Your task to perform on an android device: Toggle the flashlight Image 0: 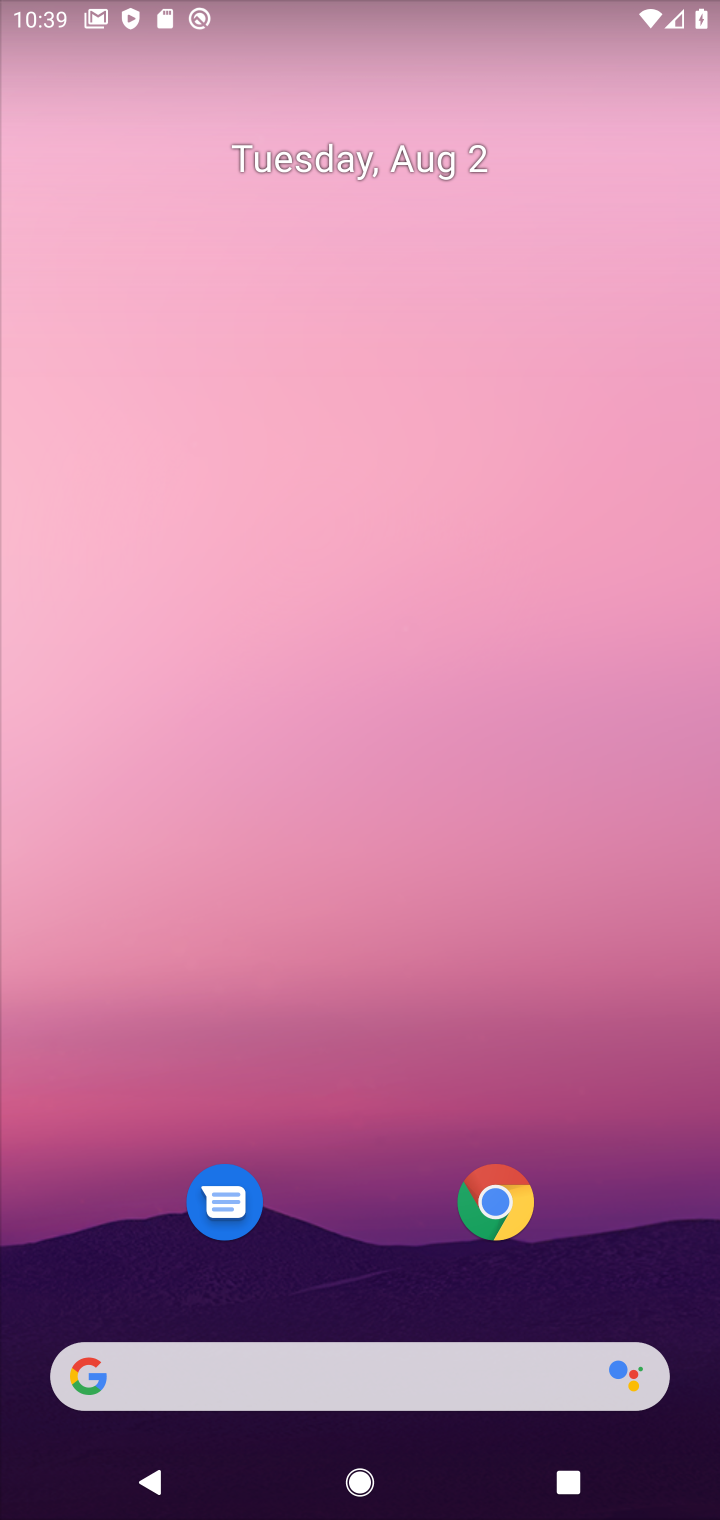
Step 0: drag from (527, 15) to (423, 1092)
Your task to perform on an android device: Toggle the flashlight Image 1: 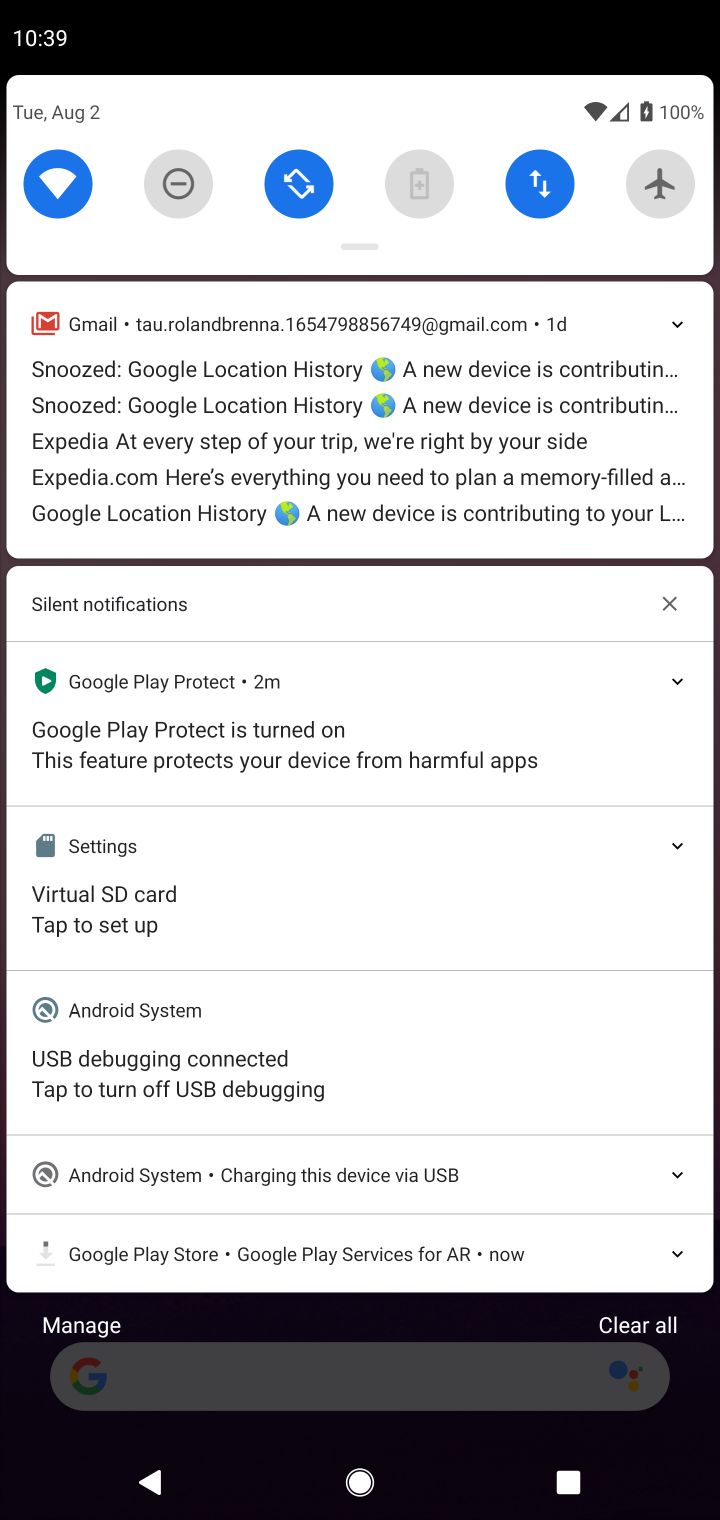
Step 1: drag from (355, 191) to (444, 1451)
Your task to perform on an android device: Toggle the flashlight Image 2: 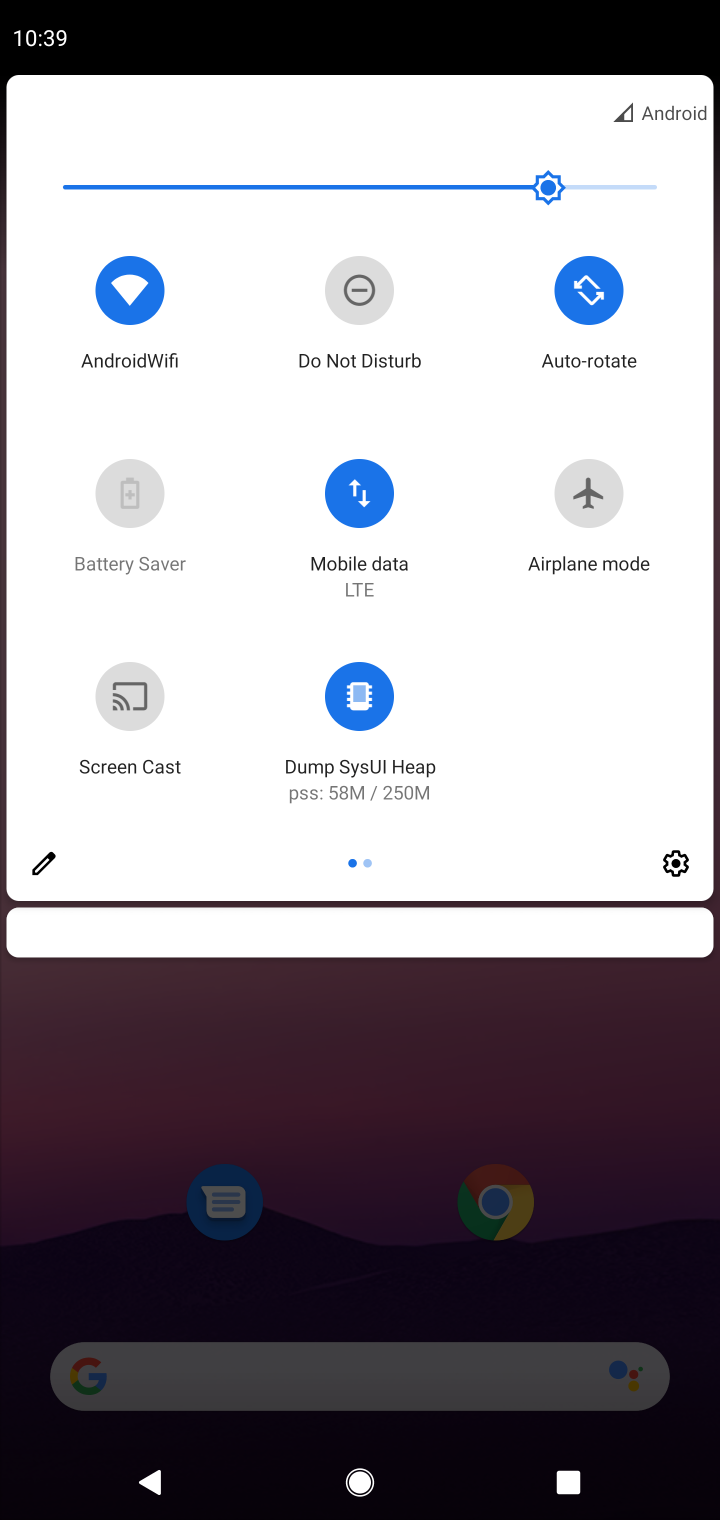
Step 2: click (47, 864)
Your task to perform on an android device: Toggle the flashlight Image 3: 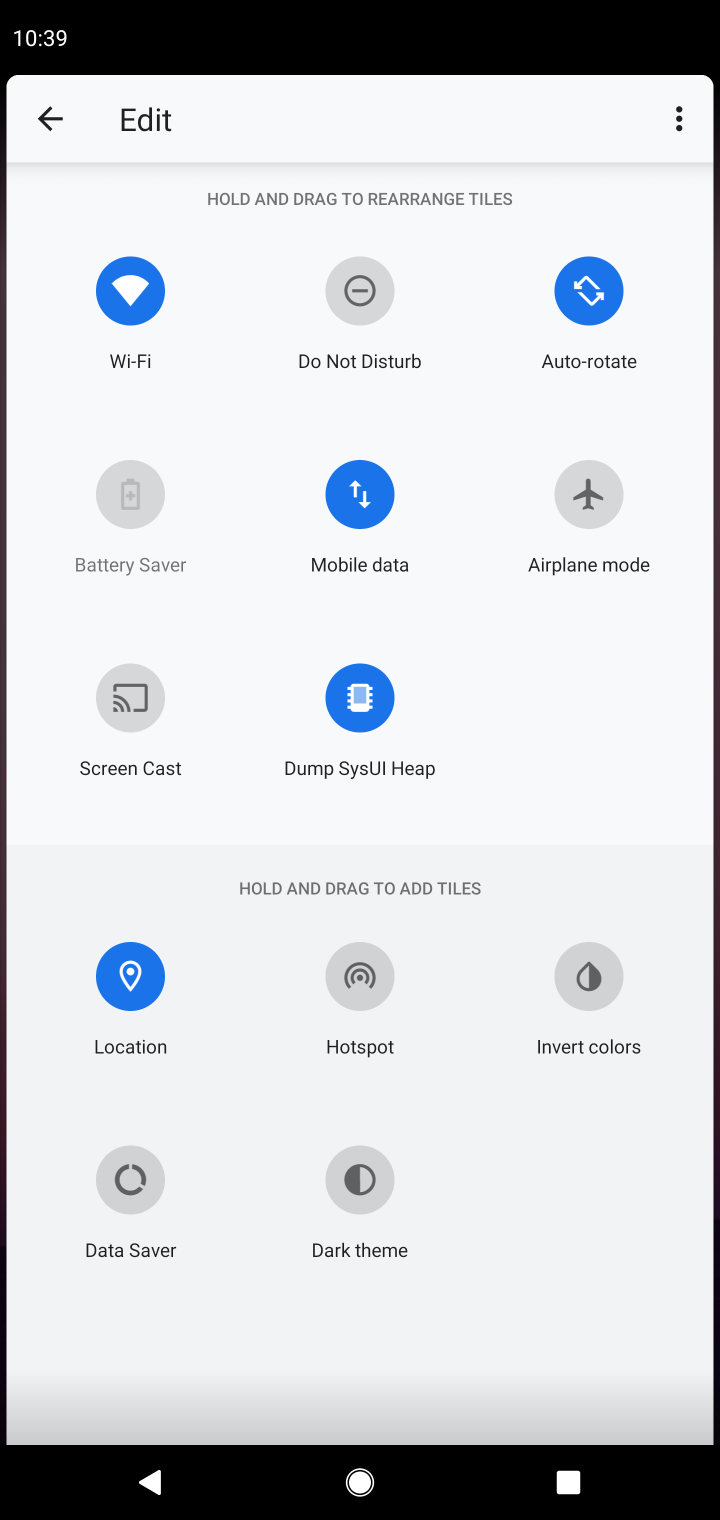
Step 3: task complete